Your task to perform on an android device: What's on my calendar tomorrow? Image 0: 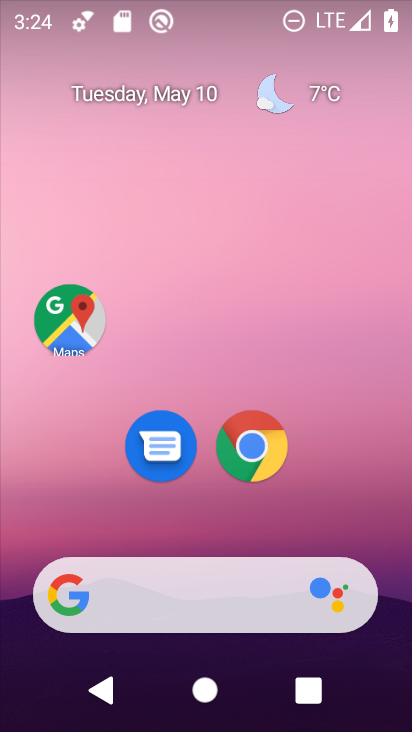
Step 0: drag from (225, 520) to (221, 49)
Your task to perform on an android device: What's on my calendar tomorrow? Image 1: 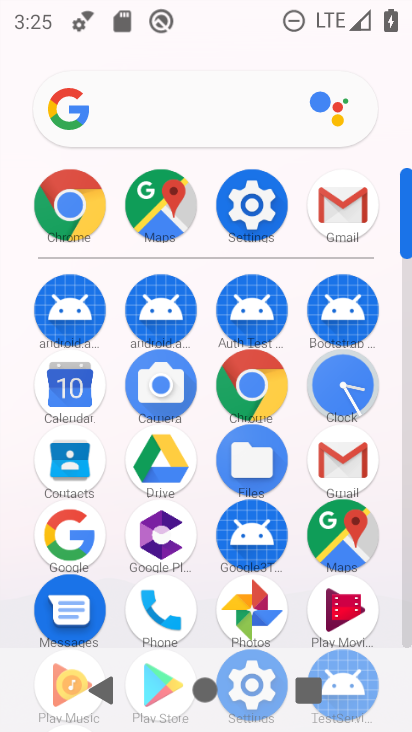
Step 1: click (70, 384)
Your task to perform on an android device: What's on my calendar tomorrow? Image 2: 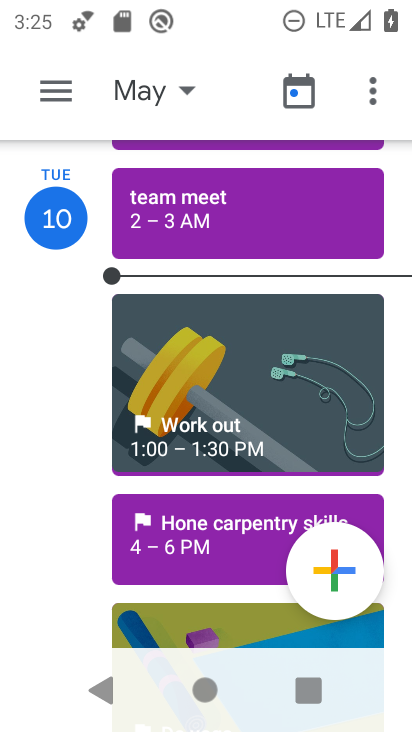
Step 2: task complete